Your task to perform on an android device: Open the web browser Image 0: 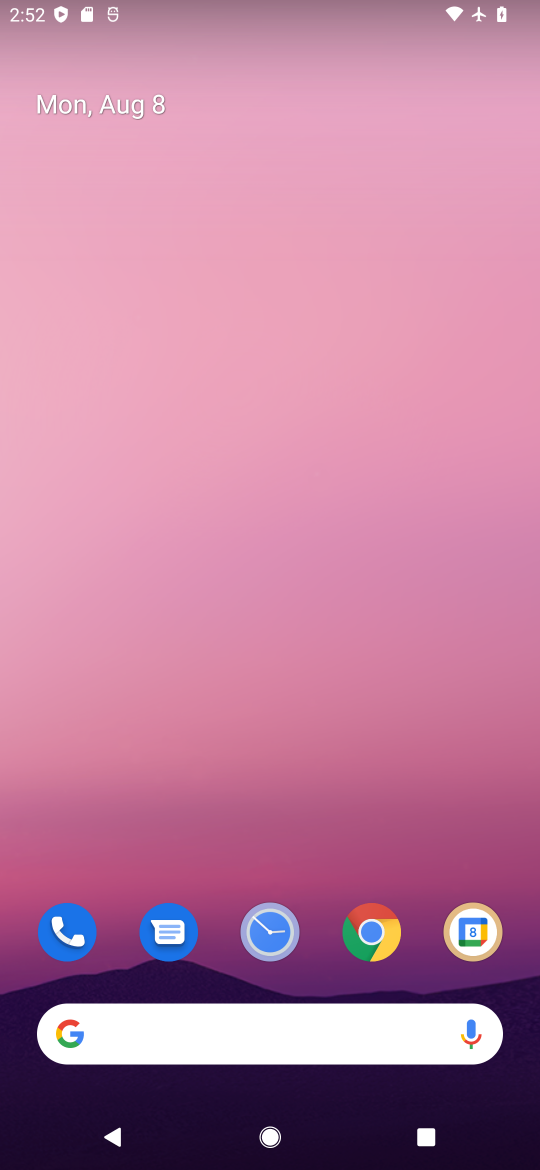
Step 0: drag from (279, 835) to (369, 214)
Your task to perform on an android device: Open the web browser Image 1: 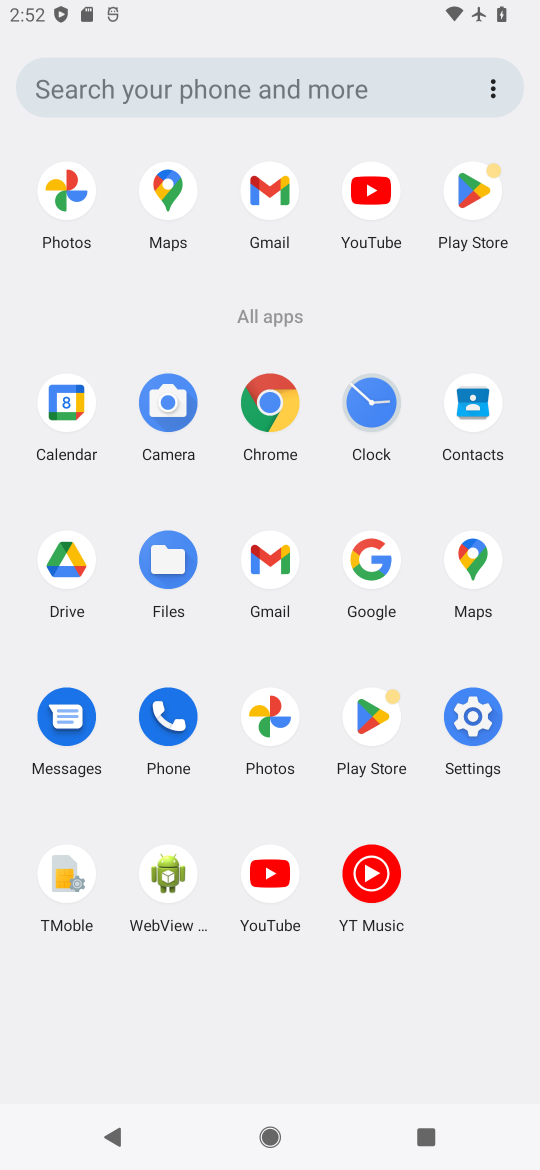
Step 1: click (283, 403)
Your task to perform on an android device: Open the web browser Image 2: 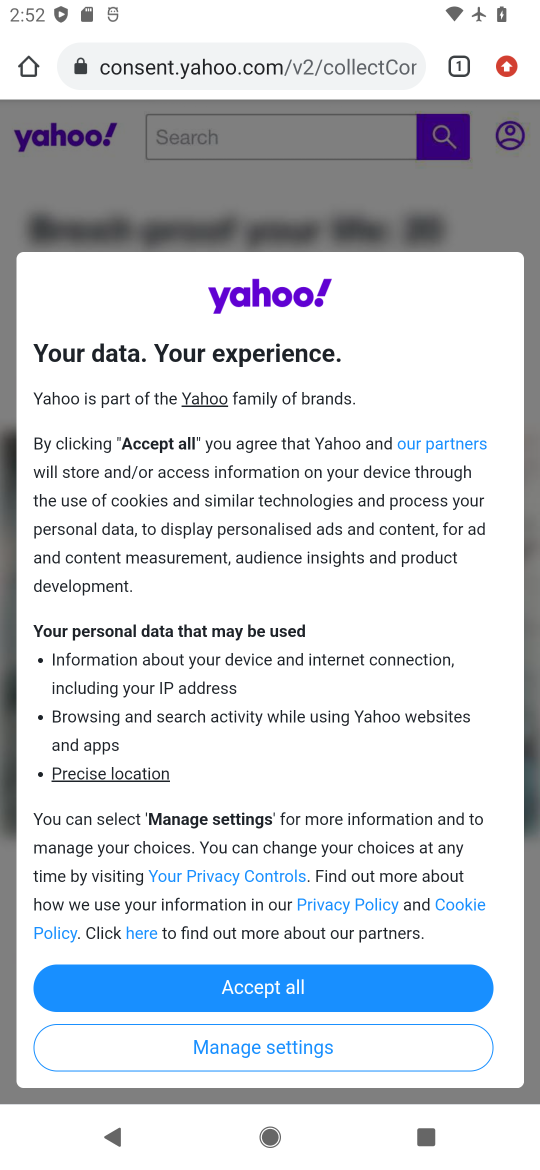
Step 2: task complete